Your task to perform on an android device: make emails show in primary in the gmail app Image 0: 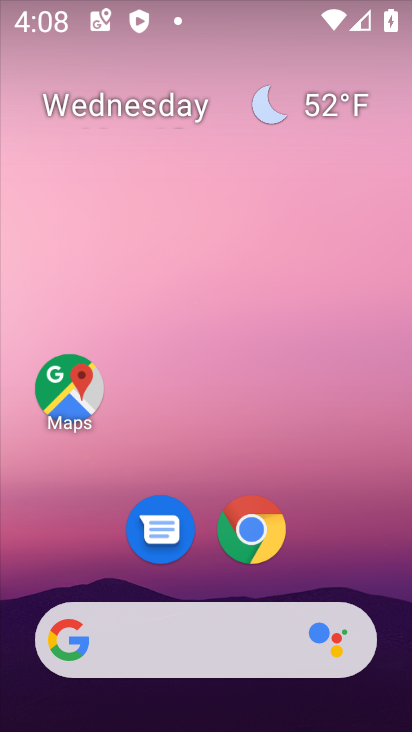
Step 0: drag from (337, 542) to (230, 61)
Your task to perform on an android device: make emails show in primary in the gmail app Image 1: 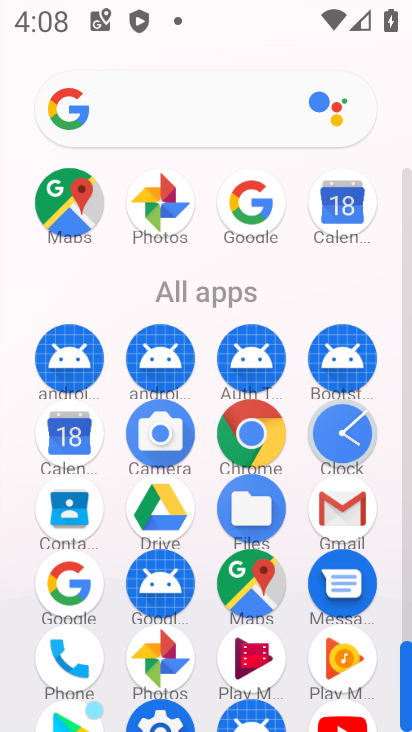
Step 1: drag from (288, 481) to (303, 277)
Your task to perform on an android device: make emails show in primary in the gmail app Image 2: 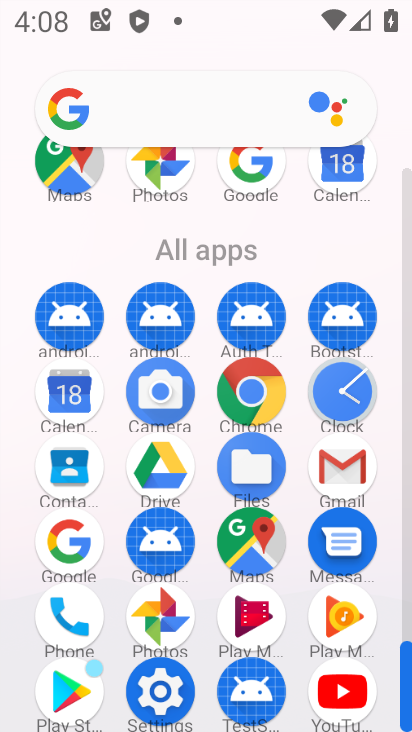
Step 2: click (345, 462)
Your task to perform on an android device: make emails show in primary in the gmail app Image 3: 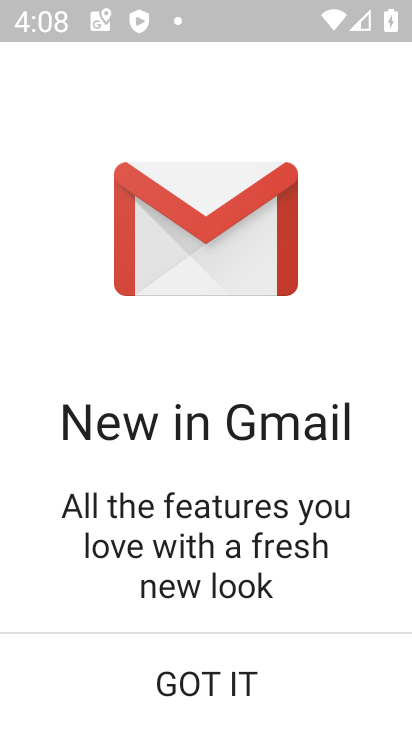
Step 3: click (196, 677)
Your task to perform on an android device: make emails show in primary in the gmail app Image 4: 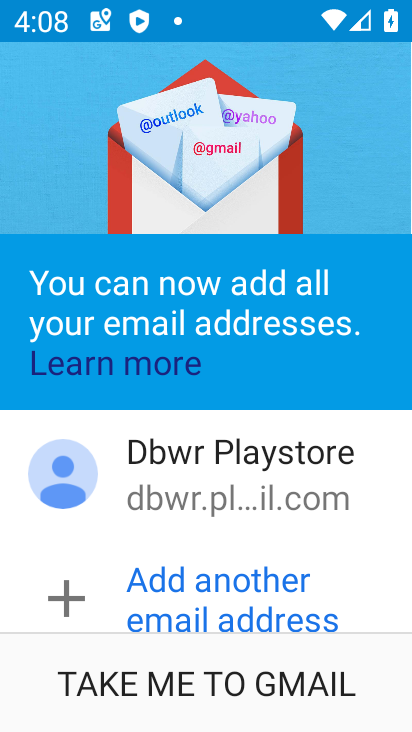
Step 4: click (196, 677)
Your task to perform on an android device: make emails show in primary in the gmail app Image 5: 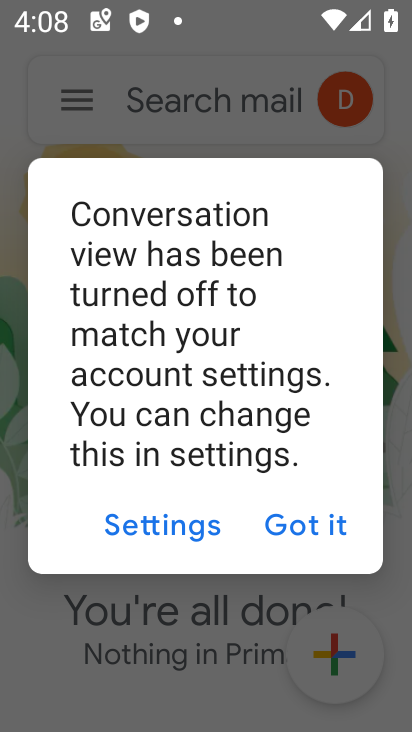
Step 5: click (306, 526)
Your task to perform on an android device: make emails show in primary in the gmail app Image 6: 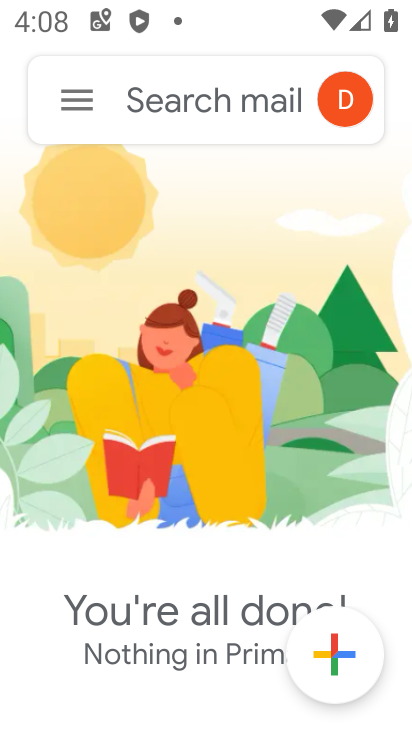
Step 6: click (70, 92)
Your task to perform on an android device: make emails show in primary in the gmail app Image 7: 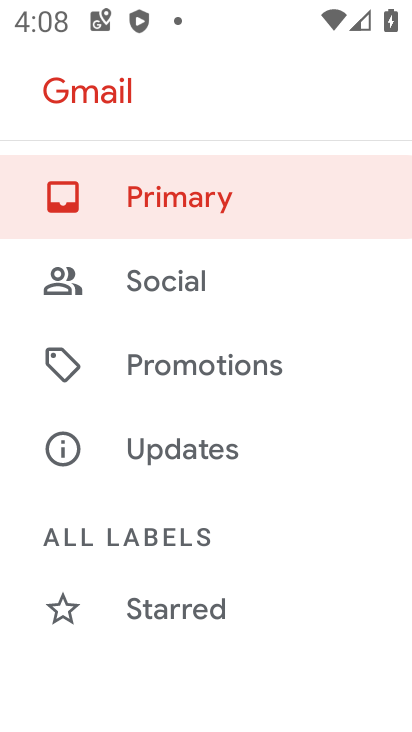
Step 7: click (169, 200)
Your task to perform on an android device: make emails show in primary in the gmail app Image 8: 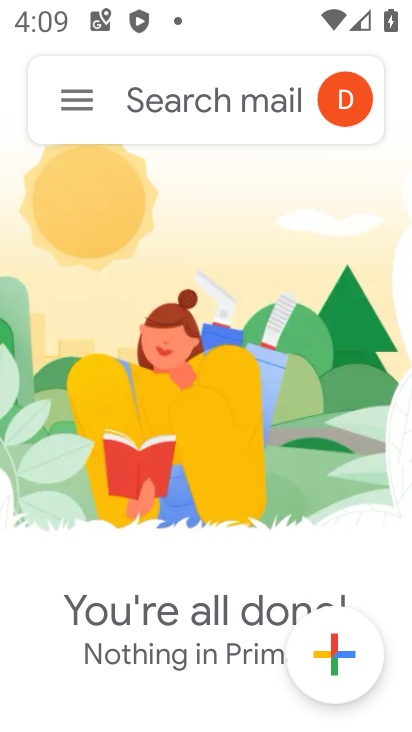
Step 8: task complete